Your task to perform on an android device: Open notification settings Image 0: 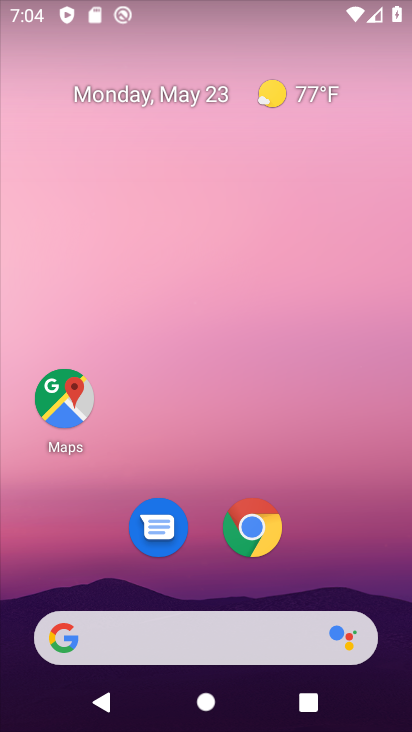
Step 0: drag from (194, 666) to (216, 16)
Your task to perform on an android device: Open notification settings Image 1: 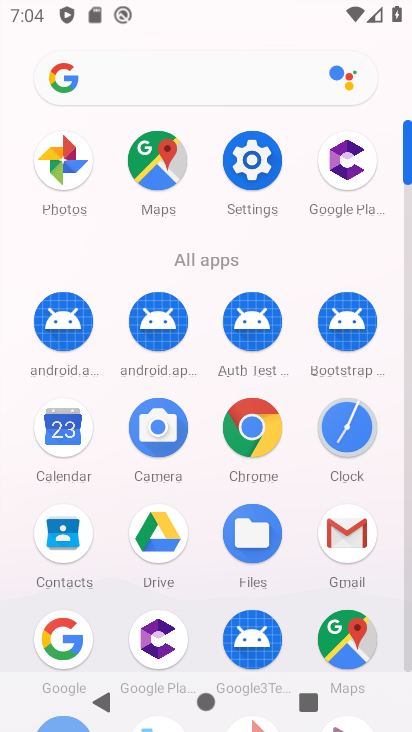
Step 1: click (244, 172)
Your task to perform on an android device: Open notification settings Image 2: 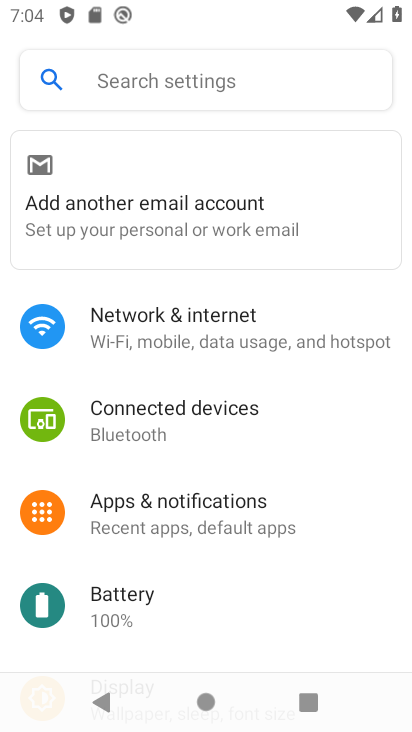
Step 2: click (176, 80)
Your task to perform on an android device: Open notification settings Image 3: 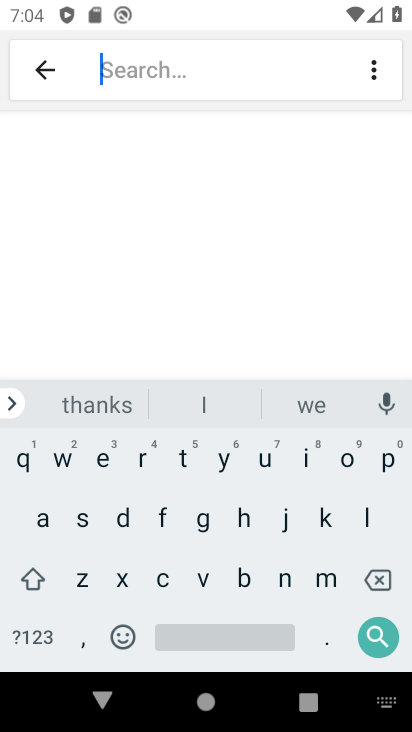
Step 3: click (284, 580)
Your task to perform on an android device: Open notification settings Image 4: 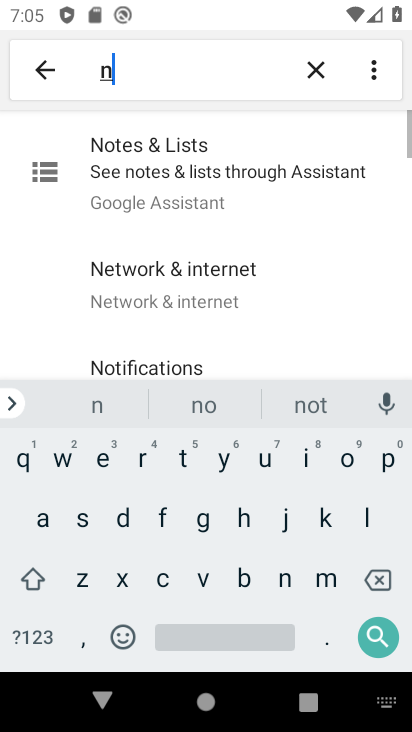
Step 4: click (342, 456)
Your task to perform on an android device: Open notification settings Image 5: 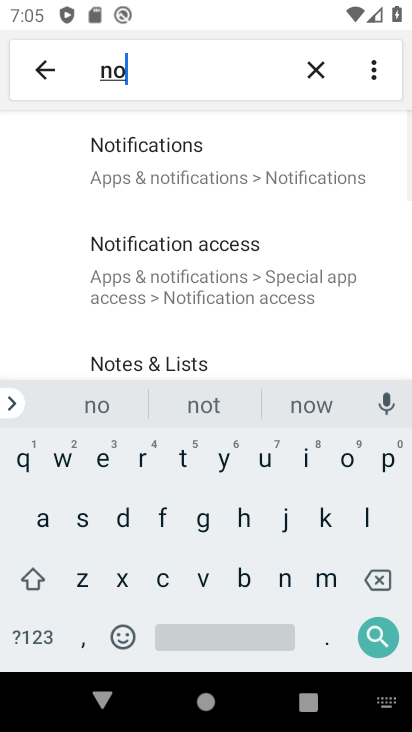
Step 5: click (156, 153)
Your task to perform on an android device: Open notification settings Image 6: 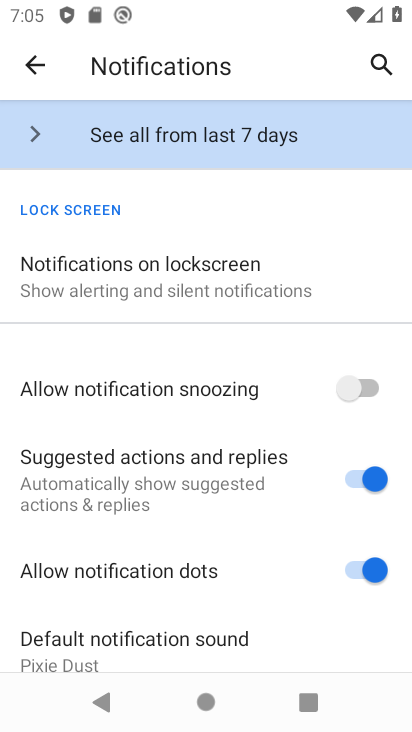
Step 6: click (117, 268)
Your task to perform on an android device: Open notification settings Image 7: 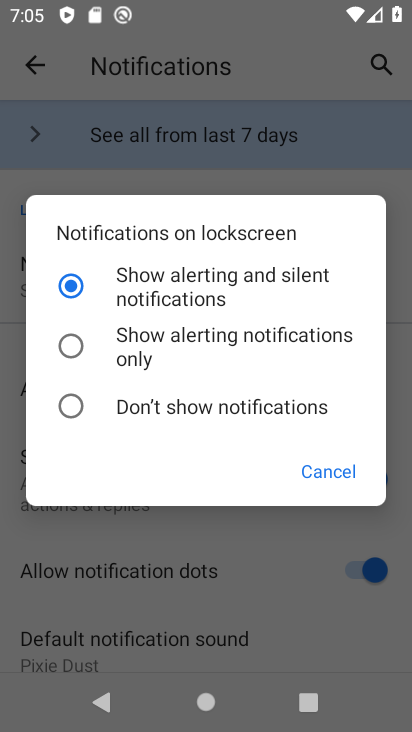
Step 7: task complete